Your task to perform on an android device: open the mobile data screen to see how much data has been used Image 0: 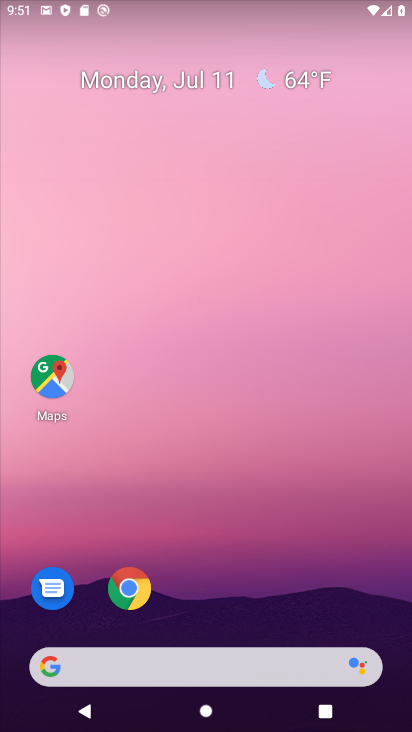
Step 0: drag from (243, 643) to (293, 173)
Your task to perform on an android device: open the mobile data screen to see how much data has been used Image 1: 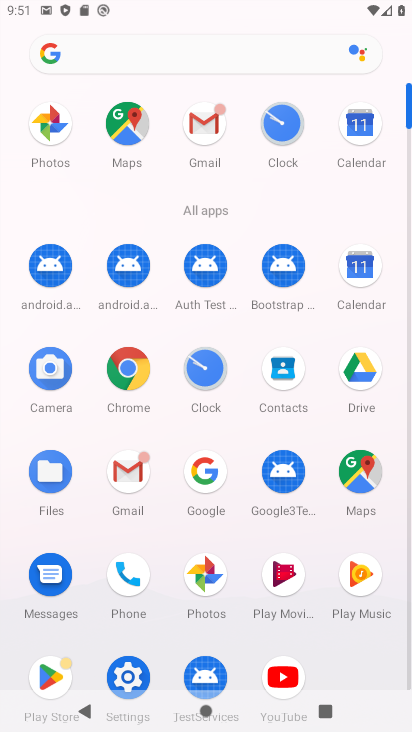
Step 1: click (119, 666)
Your task to perform on an android device: open the mobile data screen to see how much data has been used Image 2: 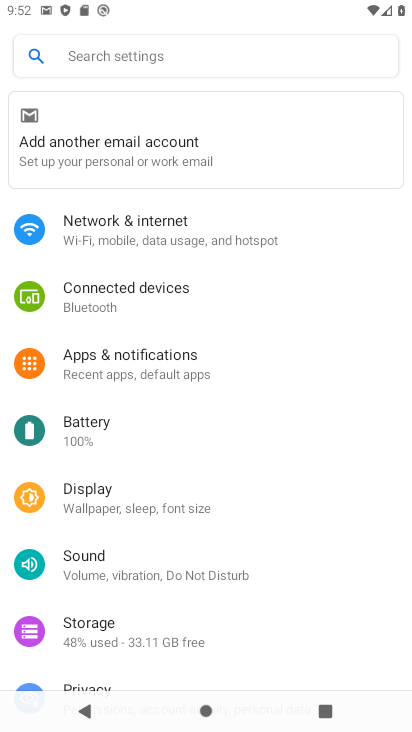
Step 2: click (217, 240)
Your task to perform on an android device: open the mobile data screen to see how much data has been used Image 3: 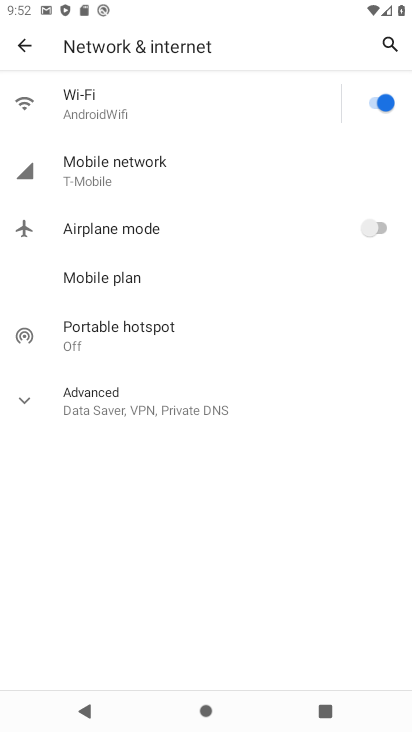
Step 3: click (123, 176)
Your task to perform on an android device: open the mobile data screen to see how much data has been used Image 4: 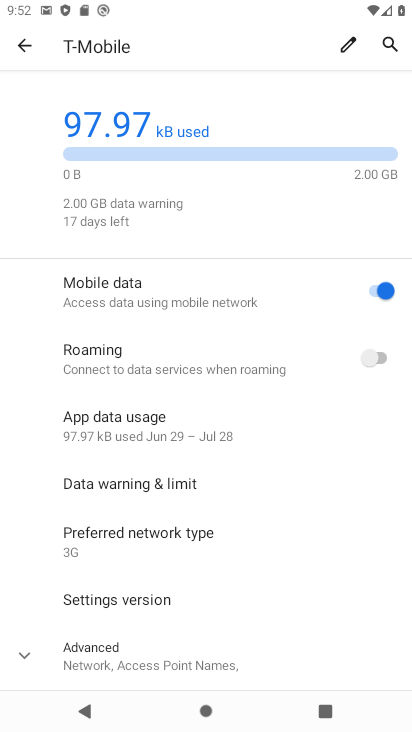
Step 4: task complete